Your task to perform on an android device: Empty the shopping cart on target. Image 0: 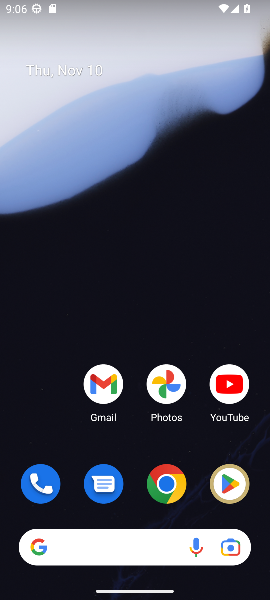
Step 0: click (166, 487)
Your task to perform on an android device: Empty the shopping cart on target. Image 1: 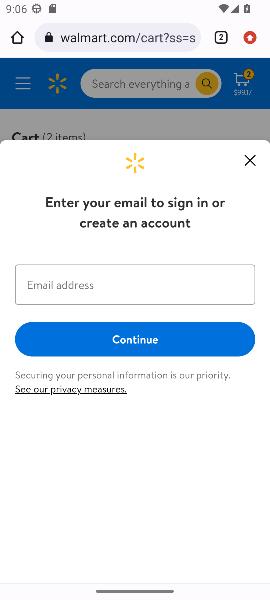
Step 1: click (96, 42)
Your task to perform on an android device: Empty the shopping cart on target. Image 2: 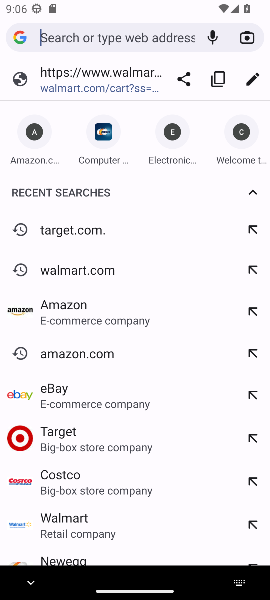
Step 2: type "target.com"
Your task to perform on an android device: Empty the shopping cart on target. Image 3: 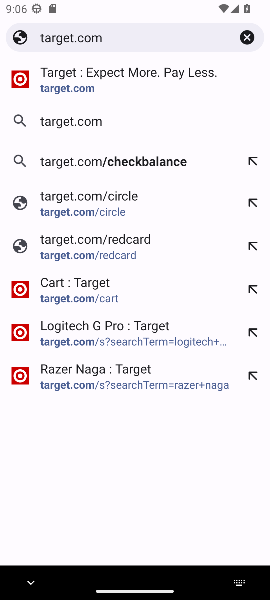
Step 3: click (74, 96)
Your task to perform on an android device: Empty the shopping cart on target. Image 4: 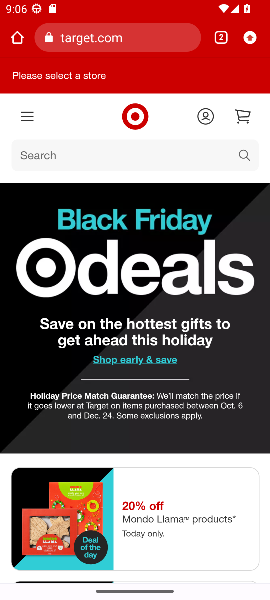
Step 4: click (249, 113)
Your task to perform on an android device: Empty the shopping cart on target. Image 5: 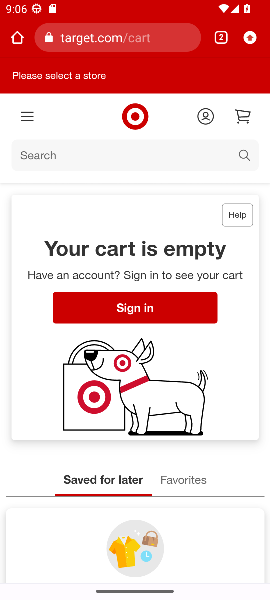
Step 5: task complete